Your task to perform on an android device: What is the recent news? Image 0: 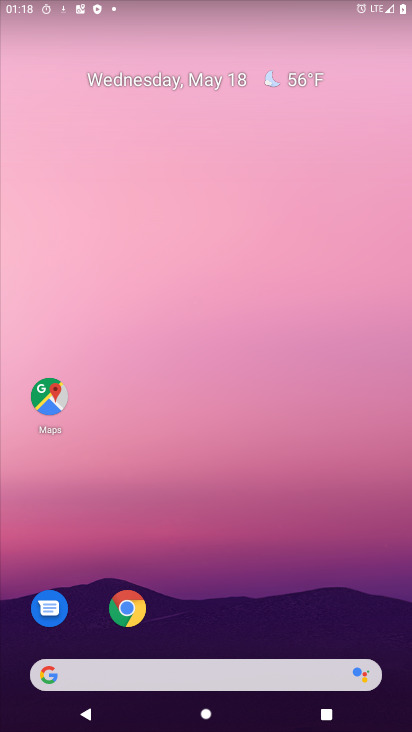
Step 0: press home button
Your task to perform on an android device: What is the recent news? Image 1: 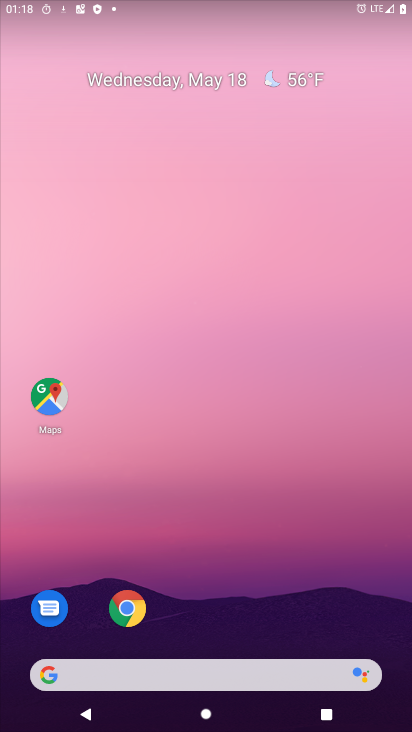
Step 1: drag from (307, 679) to (174, 82)
Your task to perform on an android device: What is the recent news? Image 2: 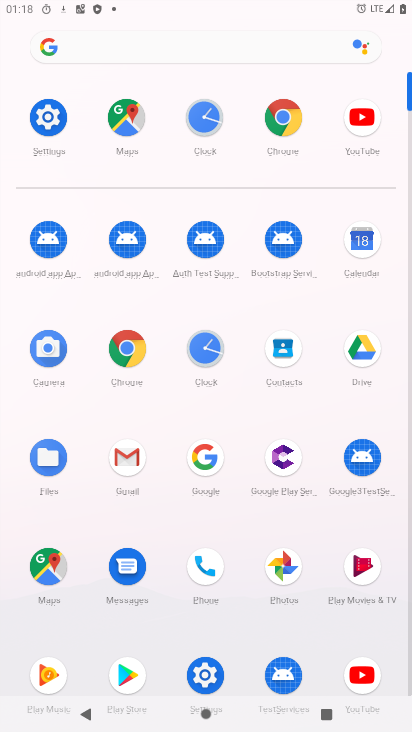
Step 2: click (108, 46)
Your task to perform on an android device: What is the recent news? Image 3: 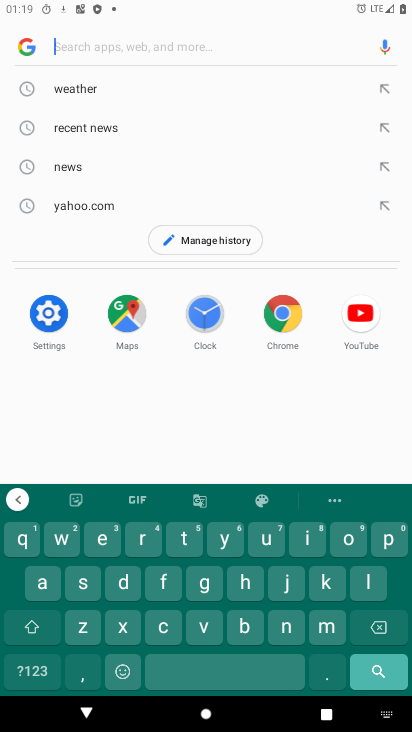
Step 3: click (120, 126)
Your task to perform on an android device: What is the recent news? Image 4: 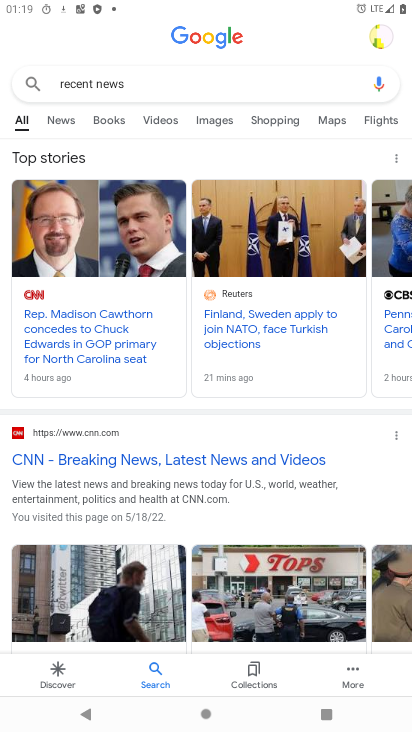
Step 4: task complete